Your task to perform on an android device: Clear the shopping cart on ebay. Search for macbook pro 15 inch on ebay, select the first entry, add it to the cart, then select checkout. Image 0: 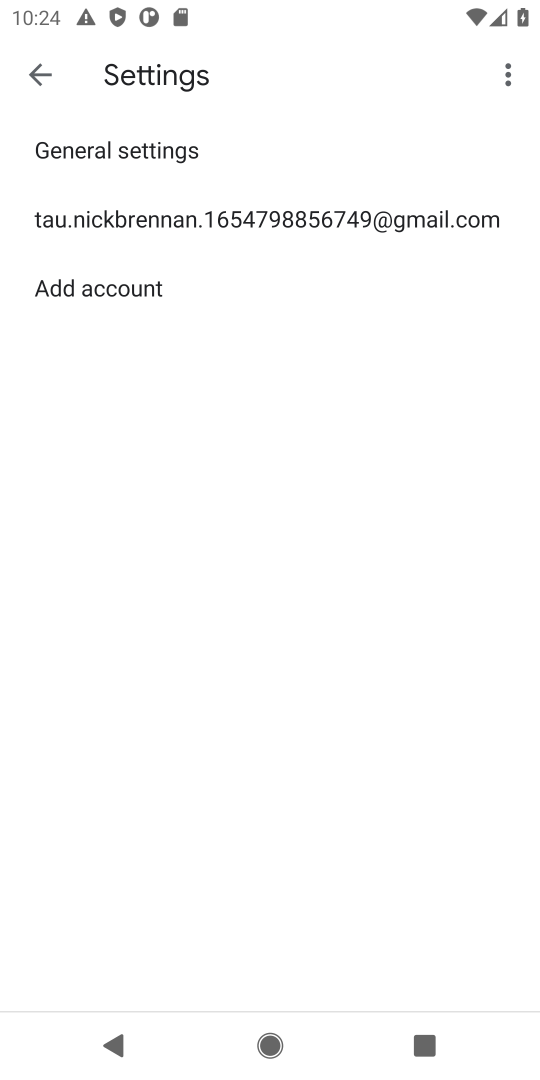
Step 0: type "ebay"
Your task to perform on an android device: Clear the shopping cart on ebay. Search for macbook pro 15 inch on ebay, select the first entry, add it to the cart, then select checkout. Image 1: 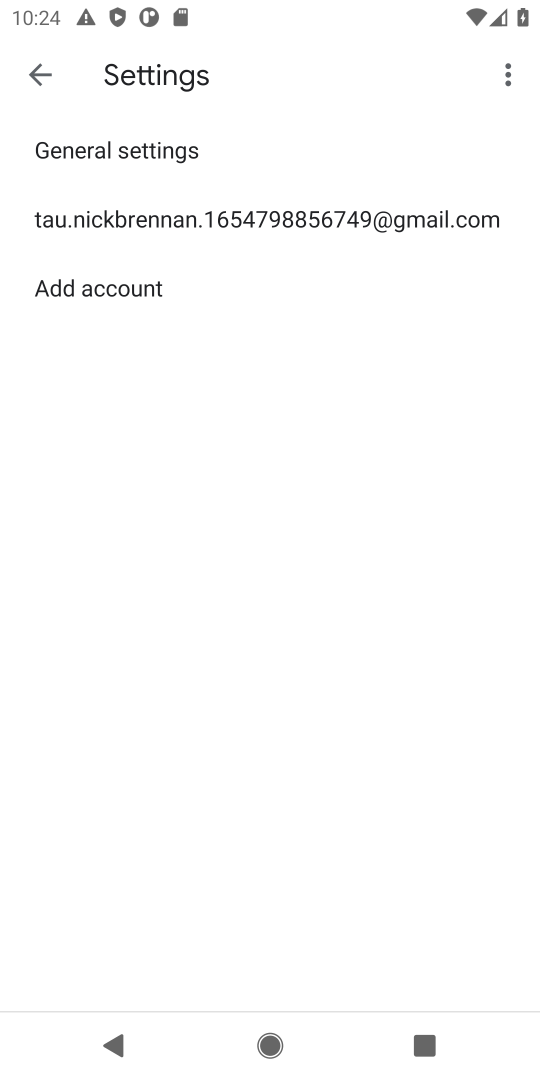
Step 1: type ""
Your task to perform on an android device: Clear the shopping cart on ebay. Search for macbook pro 15 inch on ebay, select the first entry, add it to the cart, then select checkout. Image 2: 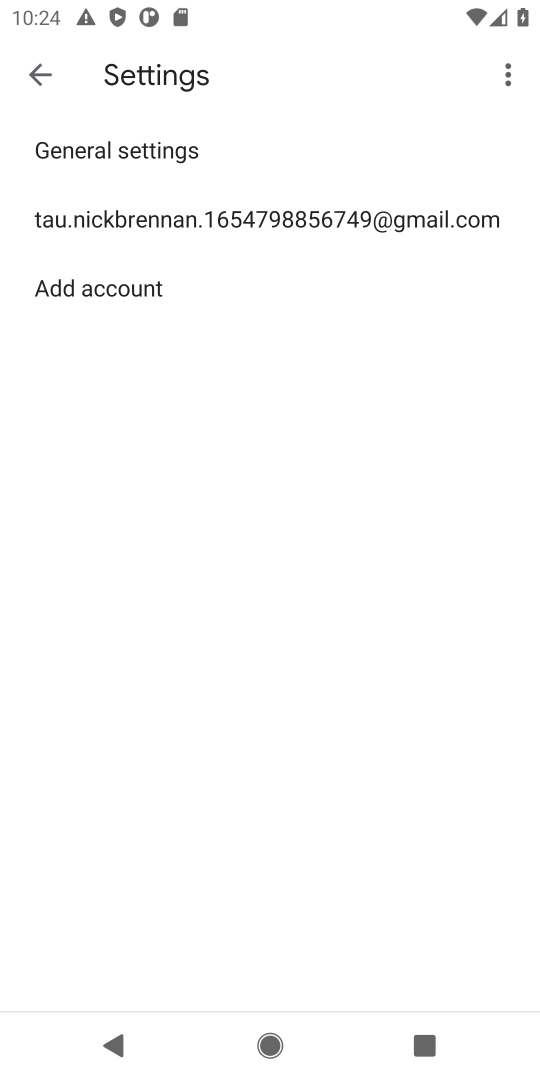
Step 2: press home button
Your task to perform on an android device: Clear the shopping cart on ebay. Search for macbook pro 15 inch on ebay, select the first entry, add it to the cart, then select checkout. Image 3: 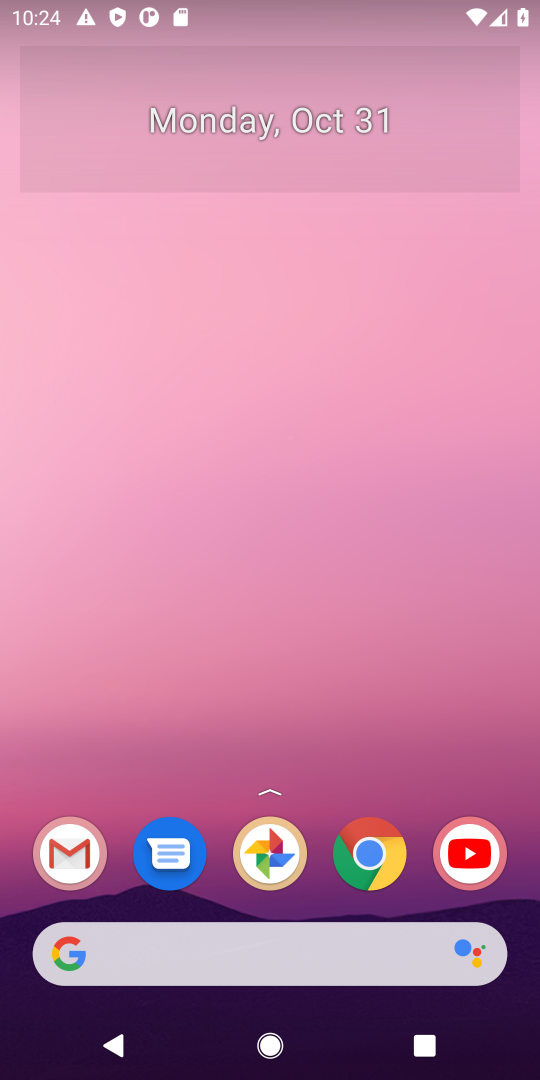
Step 3: type "ebay"
Your task to perform on an android device: Clear the shopping cart on ebay. Search for macbook pro 15 inch on ebay, select the first entry, add it to the cart, then select checkout. Image 4: 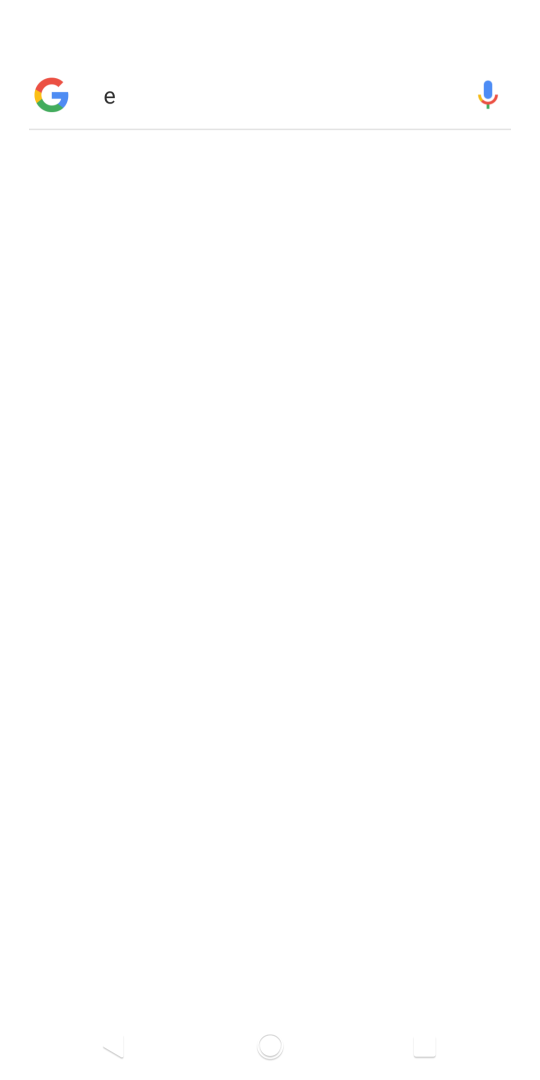
Step 4: type ""
Your task to perform on an android device: Clear the shopping cart on ebay. Search for macbook pro 15 inch on ebay, select the first entry, add it to the cart, then select checkout. Image 5: 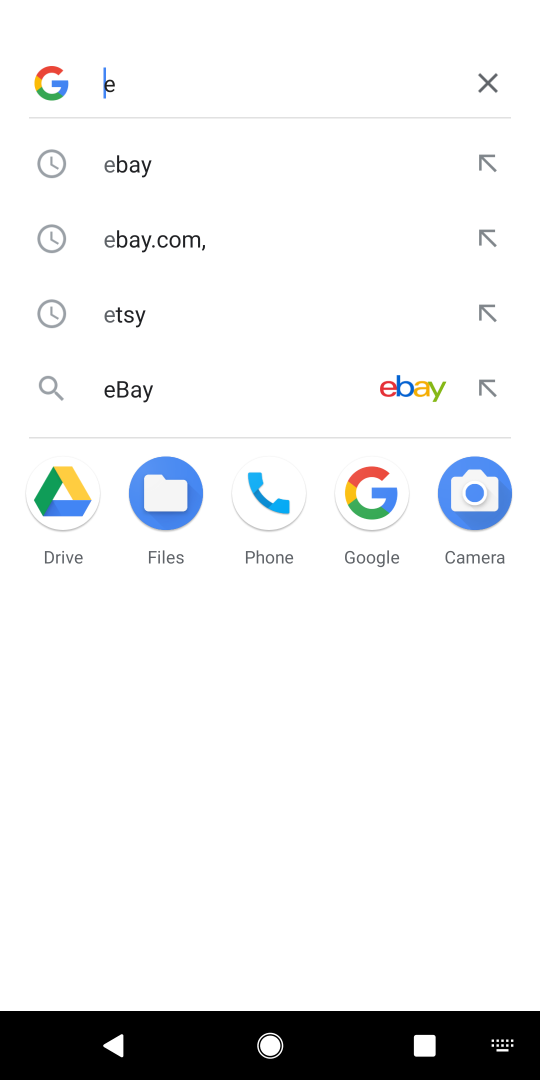
Step 5: click (167, 163)
Your task to perform on an android device: Clear the shopping cart on ebay. Search for macbook pro 15 inch on ebay, select the first entry, add it to the cart, then select checkout. Image 6: 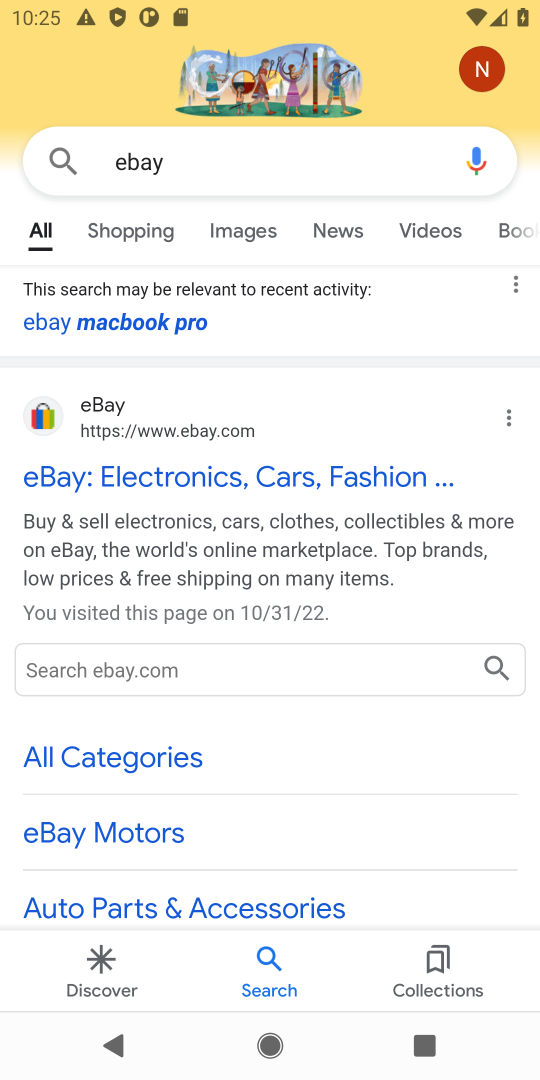
Step 6: click (129, 408)
Your task to perform on an android device: Clear the shopping cart on ebay. Search for macbook pro 15 inch on ebay, select the first entry, add it to the cart, then select checkout. Image 7: 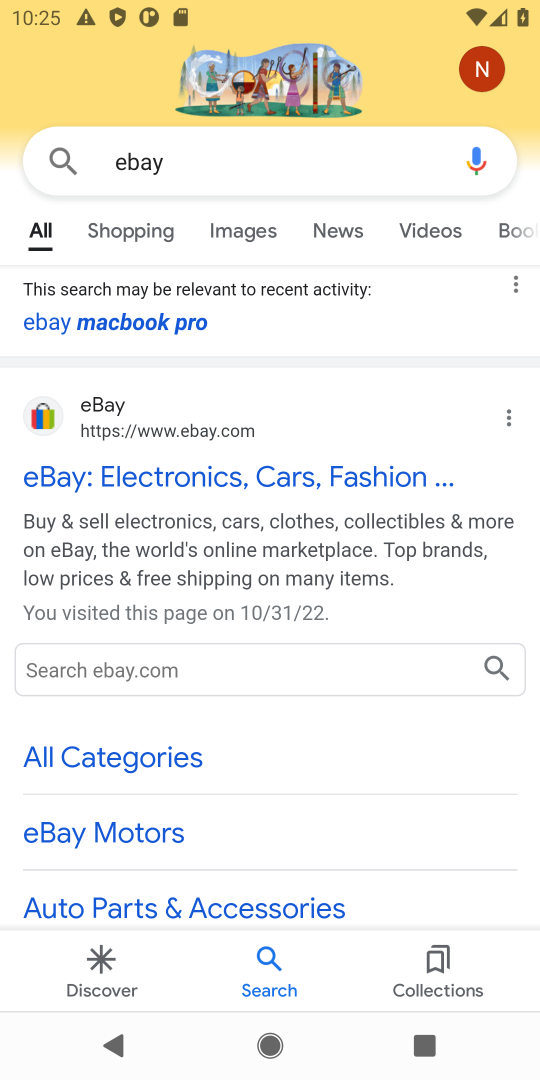
Step 7: click (152, 435)
Your task to perform on an android device: Clear the shopping cart on ebay. Search for macbook pro 15 inch on ebay, select the first entry, add it to the cart, then select checkout. Image 8: 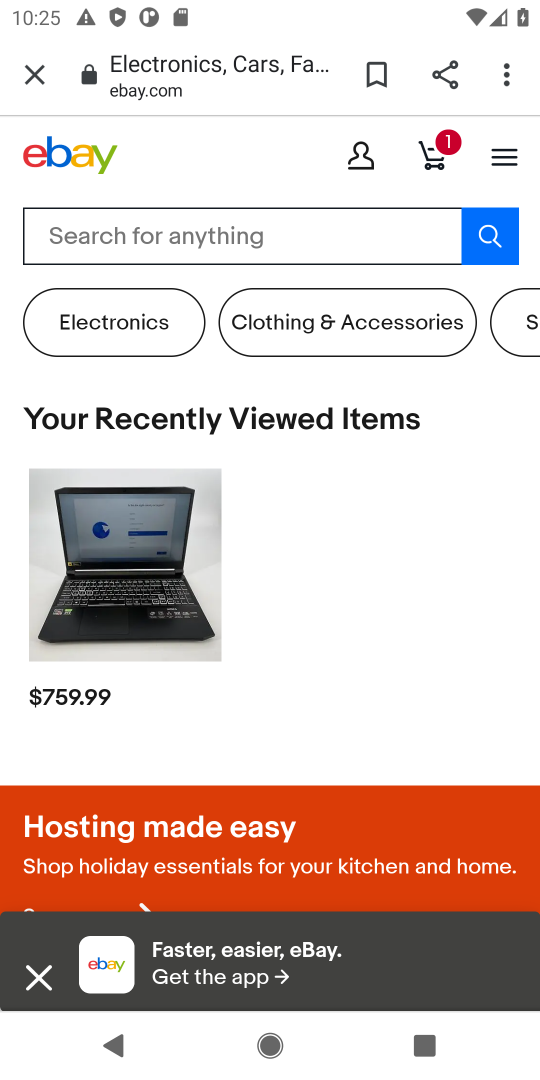
Step 8: click (140, 252)
Your task to perform on an android device: Clear the shopping cart on ebay. Search for macbook pro 15 inch on ebay, select the first entry, add it to the cart, then select checkout. Image 9: 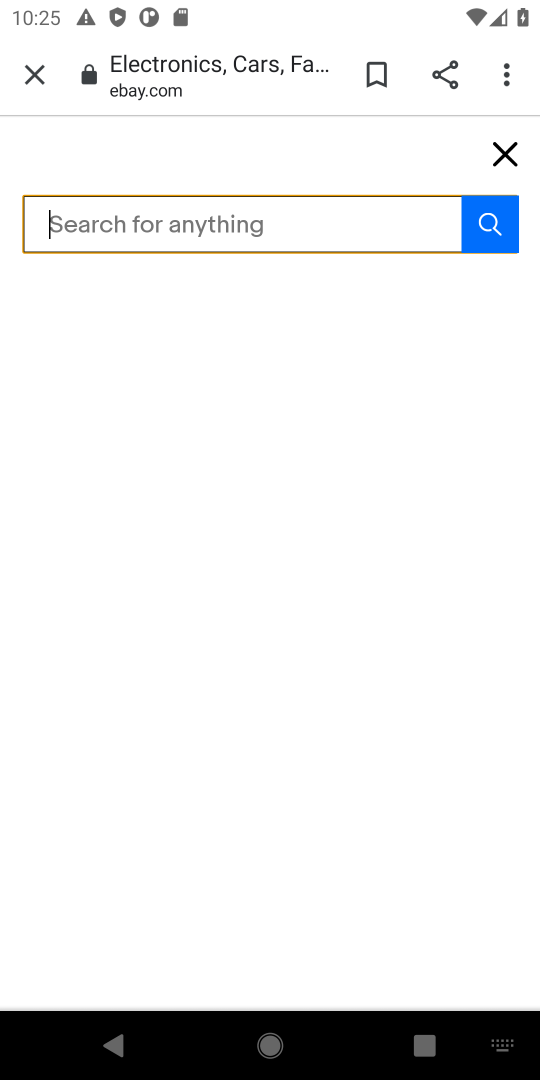
Step 9: click (496, 156)
Your task to perform on an android device: Clear the shopping cart on ebay. Search for macbook pro 15 inch on ebay, select the first entry, add it to the cart, then select checkout. Image 10: 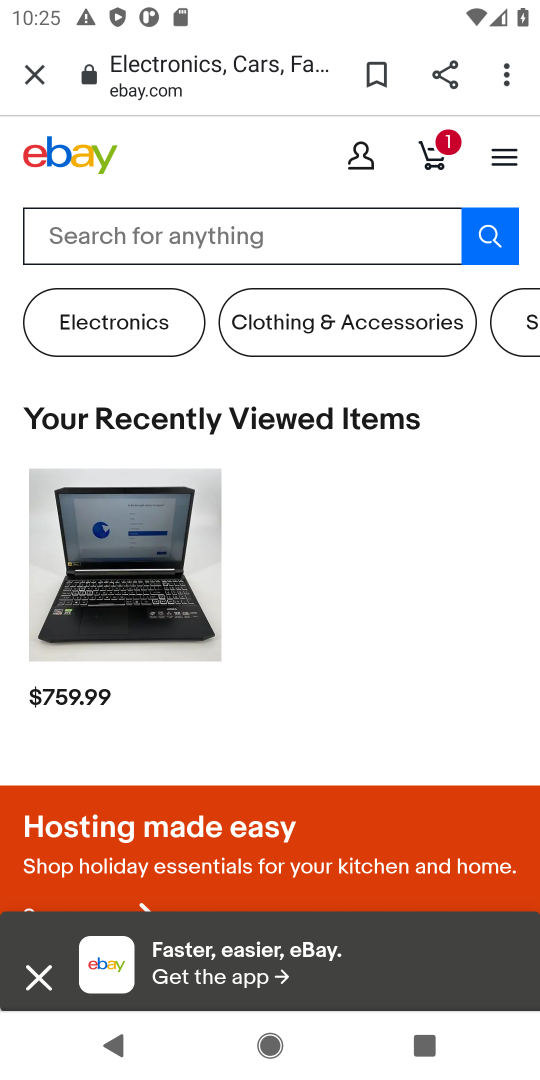
Step 10: click (438, 142)
Your task to perform on an android device: Clear the shopping cart on ebay. Search for macbook pro 15 inch on ebay, select the first entry, add it to the cart, then select checkout. Image 11: 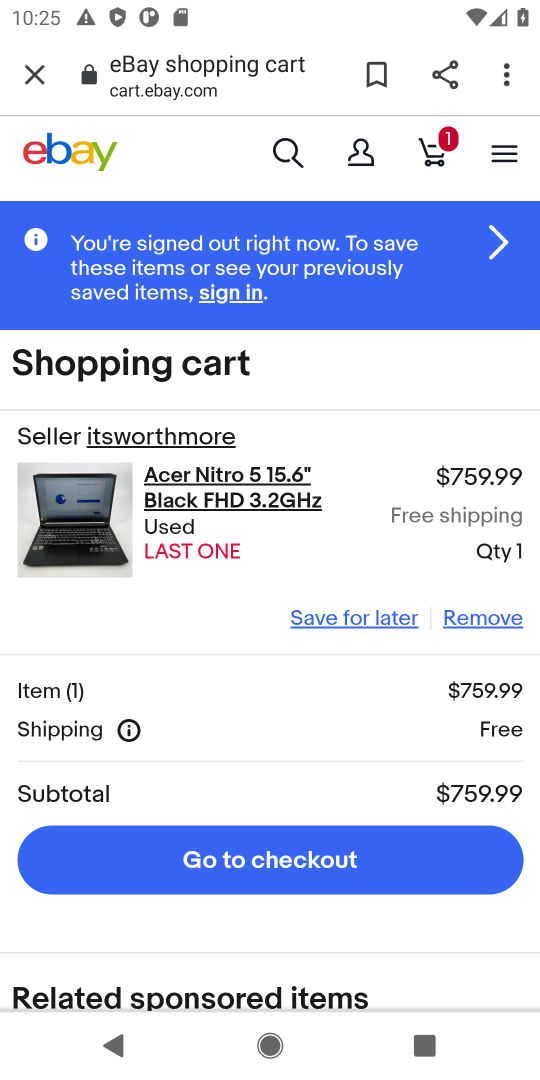
Step 11: click (472, 615)
Your task to perform on an android device: Clear the shopping cart on ebay. Search for macbook pro 15 inch on ebay, select the first entry, add it to the cart, then select checkout. Image 12: 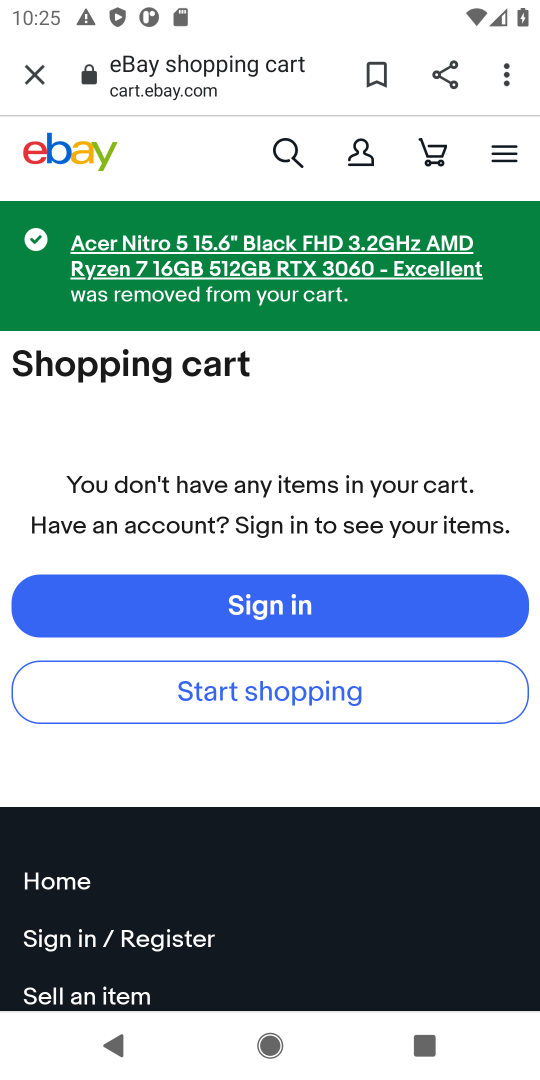
Step 12: click (278, 163)
Your task to perform on an android device: Clear the shopping cart on ebay. Search for macbook pro 15 inch on ebay, select the first entry, add it to the cart, then select checkout. Image 13: 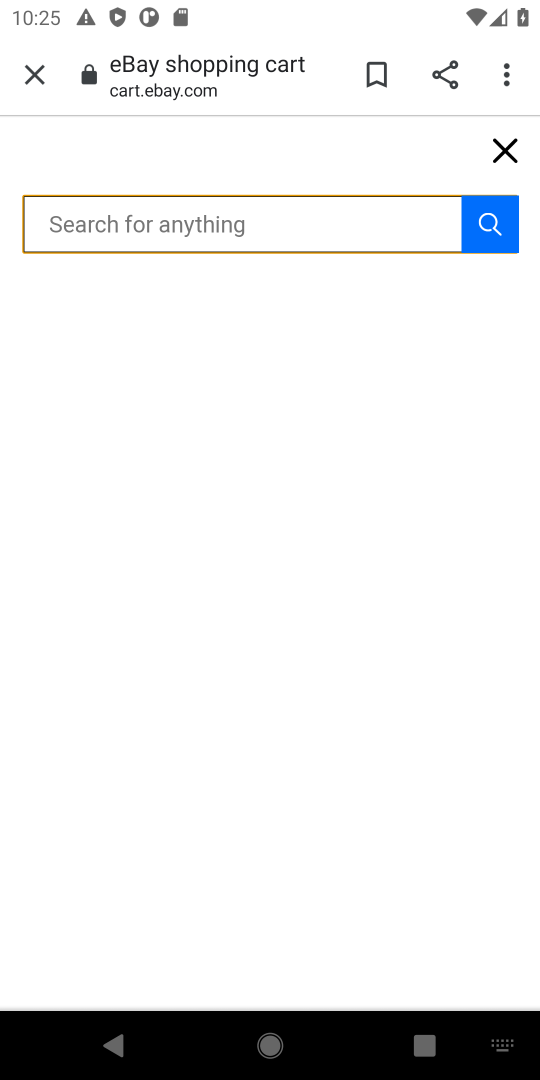
Step 13: type "macbook pro 15 inch"
Your task to perform on an android device: Clear the shopping cart on ebay. Search for macbook pro 15 inch on ebay, select the first entry, add it to the cart, then select checkout. Image 14: 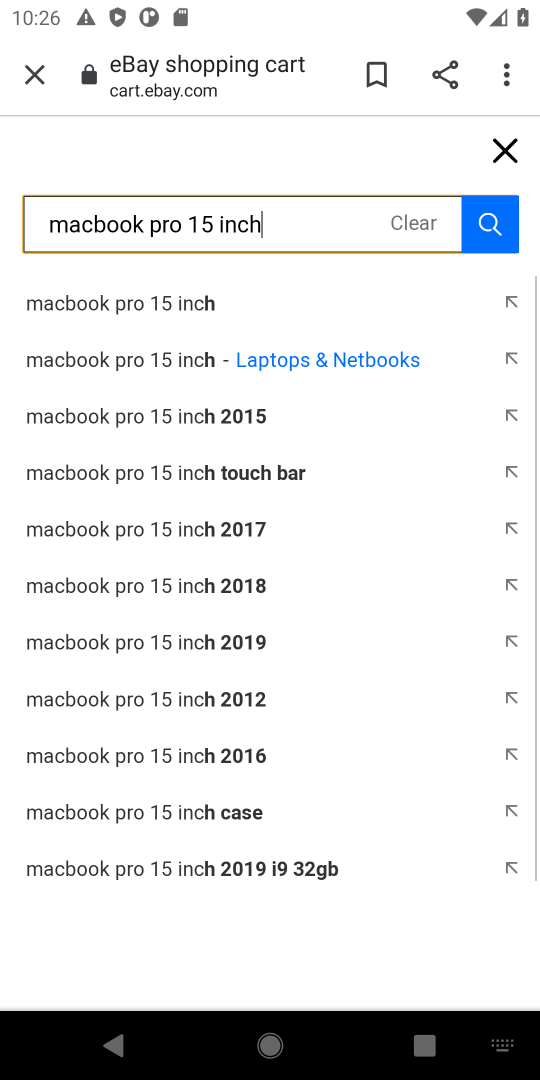
Step 14: type ""
Your task to perform on an android device: Clear the shopping cart on ebay. Search for macbook pro 15 inch on ebay, select the first entry, add it to the cart, then select checkout. Image 15: 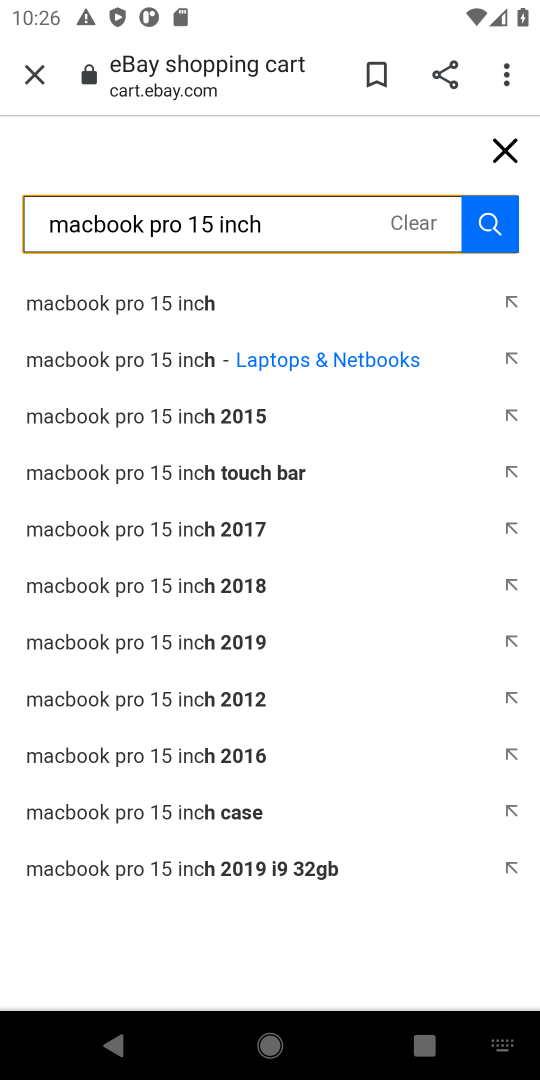
Step 15: type ""
Your task to perform on an android device: Clear the shopping cart on ebay. Search for macbook pro 15 inch on ebay, select the first entry, add it to the cart, then select checkout. Image 16: 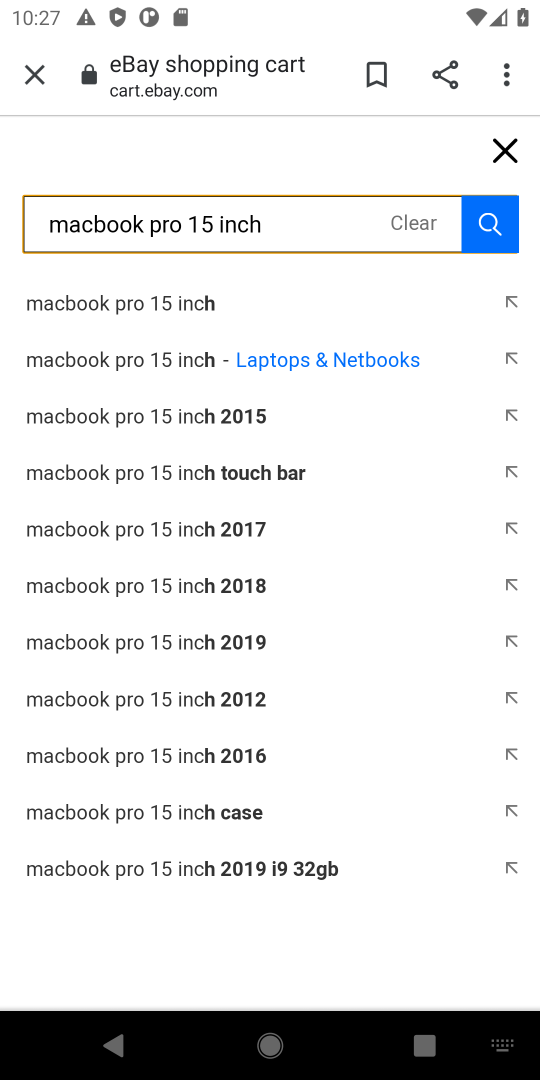
Step 16: press home button
Your task to perform on an android device: Clear the shopping cart on ebay. Search for macbook pro 15 inch on ebay, select the first entry, add it to the cart, then select checkout. Image 17: 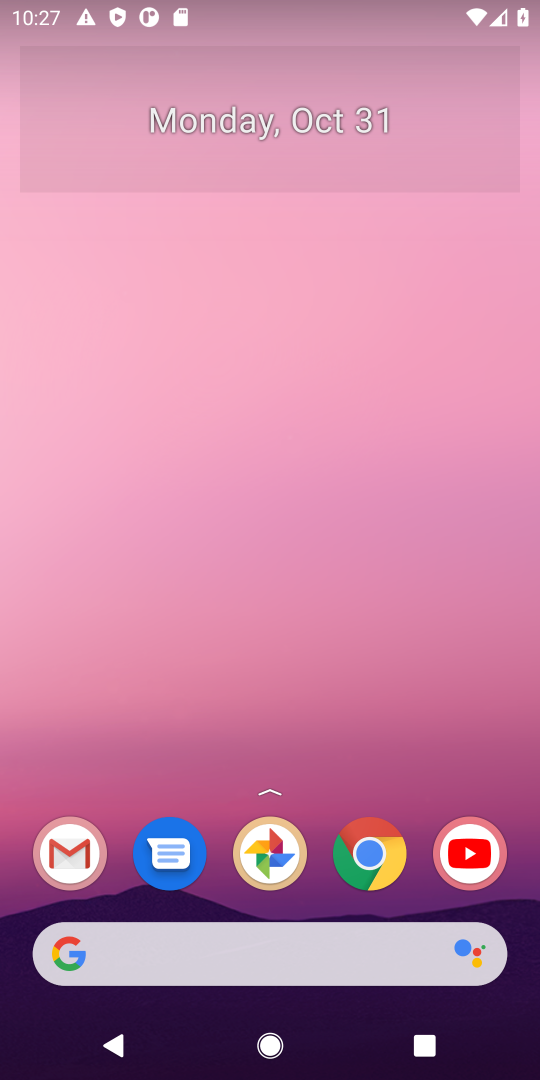
Step 17: click (269, 969)
Your task to perform on an android device: Clear the shopping cart on ebay. Search for macbook pro 15 inch on ebay, select the first entry, add it to the cart, then select checkout. Image 18: 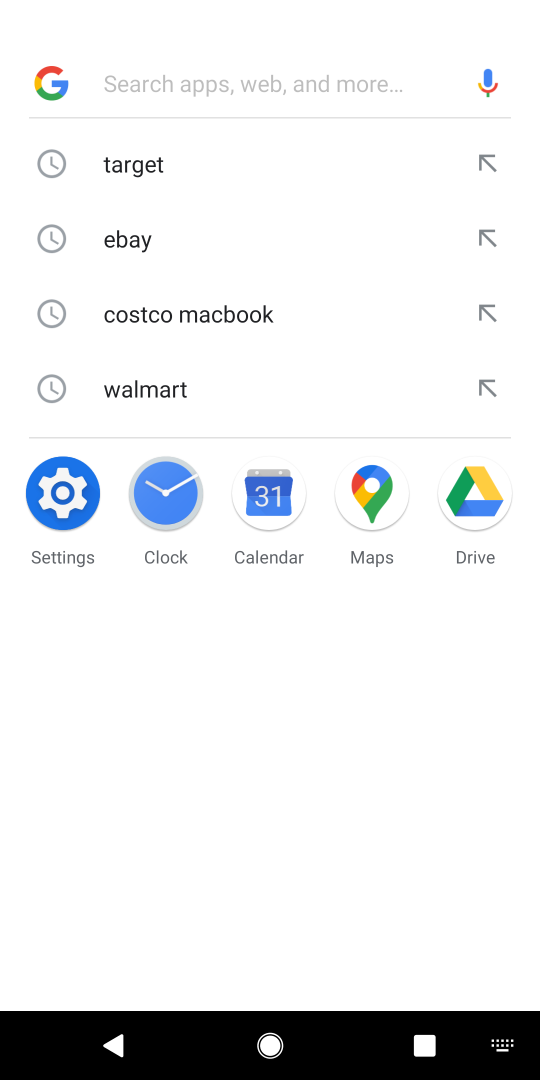
Step 18: click (149, 253)
Your task to perform on an android device: Clear the shopping cart on ebay. Search for macbook pro 15 inch on ebay, select the first entry, add it to the cart, then select checkout. Image 19: 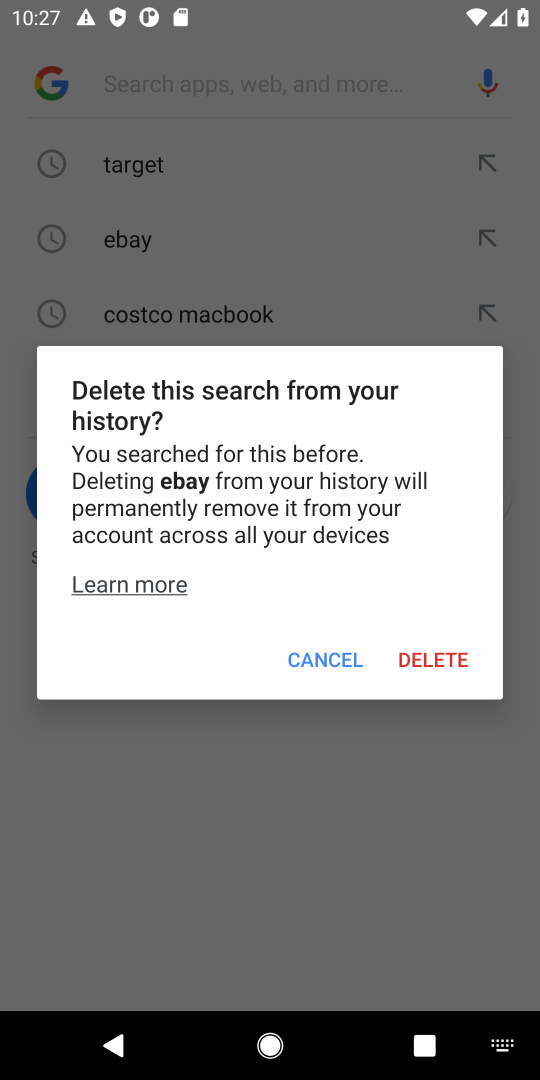
Step 19: click (320, 675)
Your task to perform on an android device: Clear the shopping cart on ebay. Search for macbook pro 15 inch on ebay, select the first entry, add it to the cart, then select checkout. Image 20: 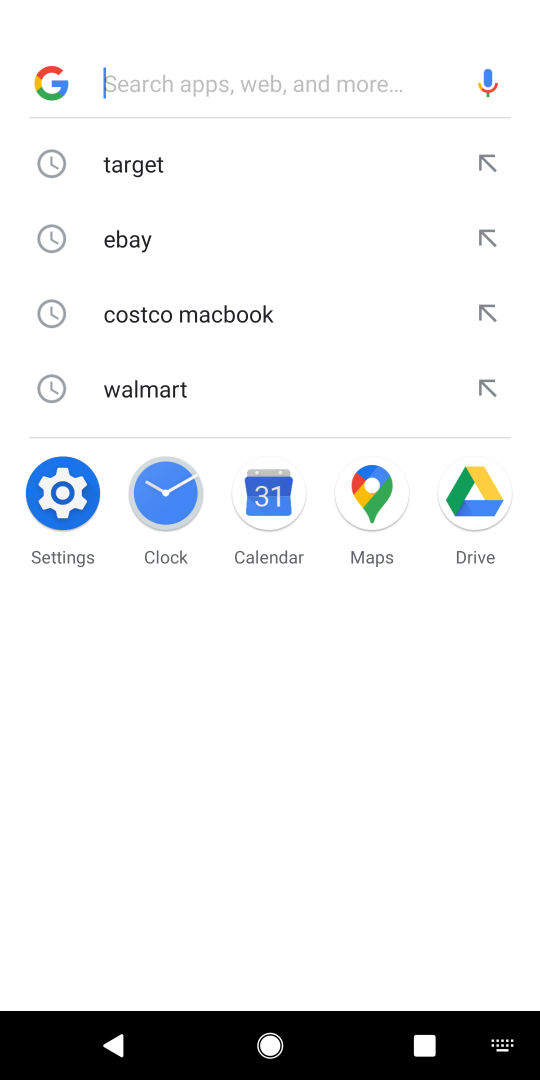
Step 20: click (128, 245)
Your task to perform on an android device: Clear the shopping cart on ebay. Search for macbook pro 15 inch on ebay, select the first entry, add it to the cart, then select checkout. Image 21: 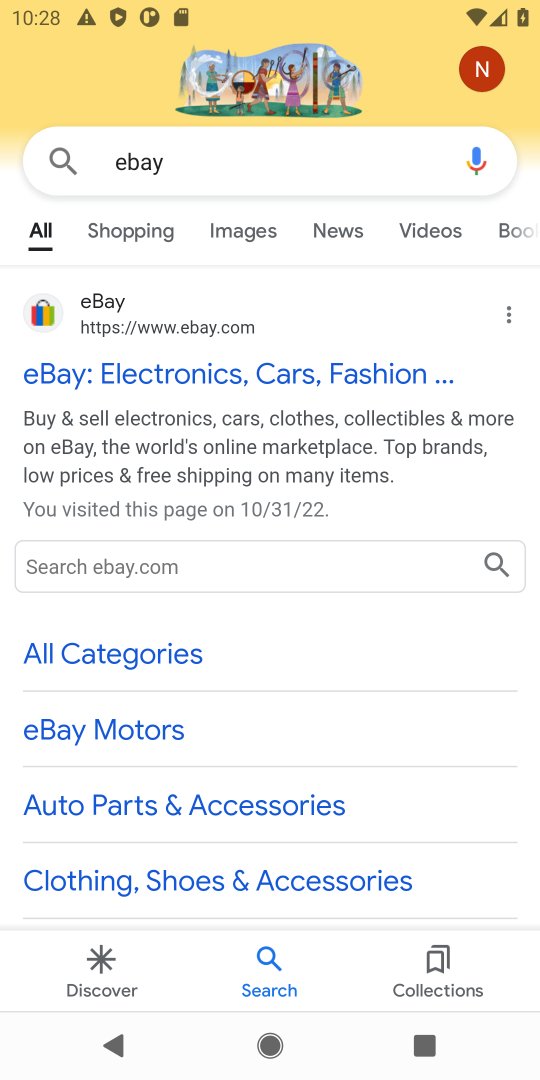
Step 21: click (199, 368)
Your task to perform on an android device: Clear the shopping cart on ebay. Search for macbook pro 15 inch on ebay, select the first entry, add it to the cart, then select checkout. Image 22: 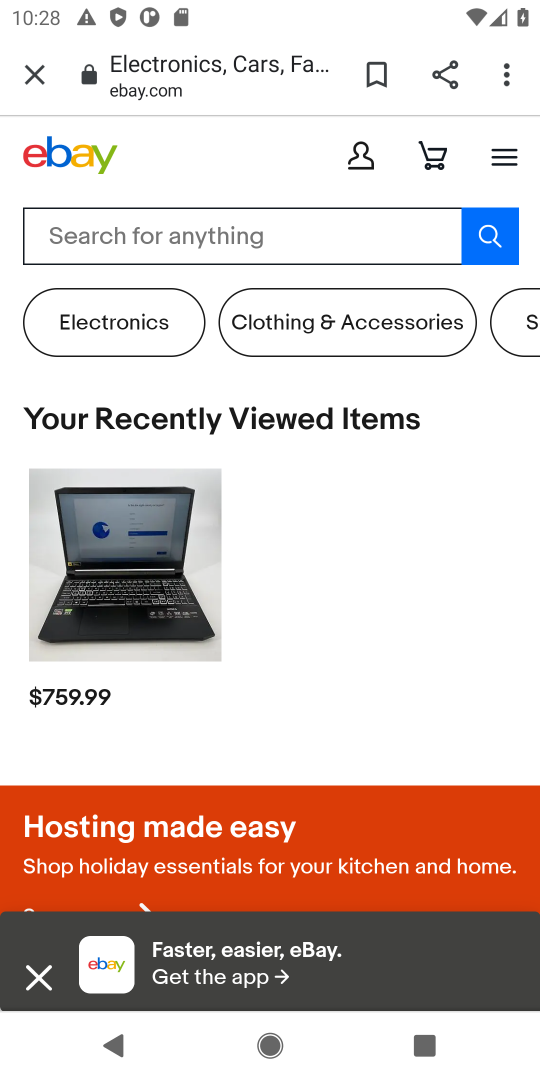
Step 22: click (132, 249)
Your task to perform on an android device: Clear the shopping cart on ebay. Search for macbook pro 15 inch on ebay, select the first entry, add it to the cart, then select checkout. Image 23: 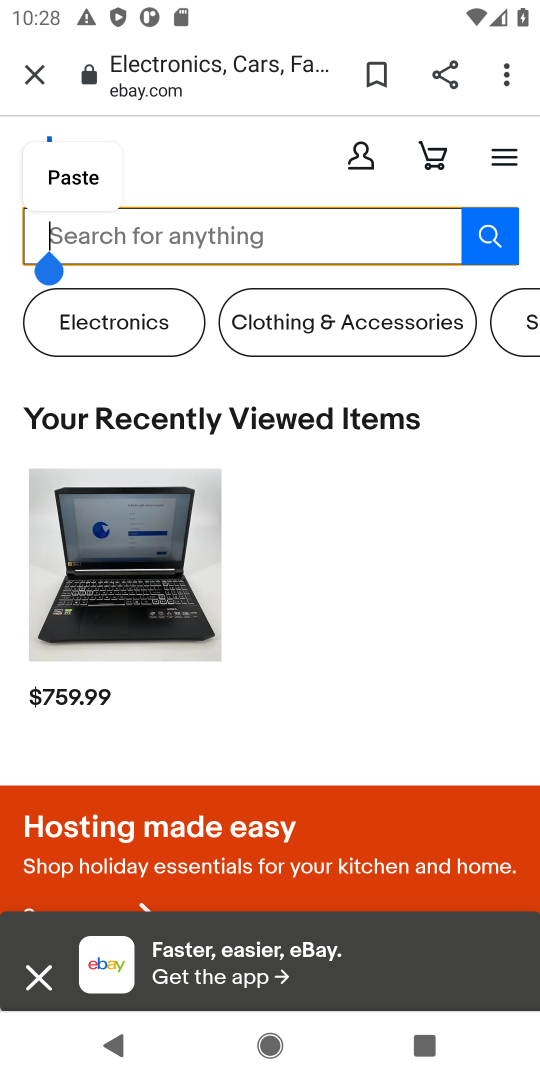
Step 23: type "macbook pro 15 inch"
Your task to perform on an android device: Clear the shopping cart on ebay. Search for macbook pro 15 inch on ebay, select the first entry, add it to the cart, then select checkout. Image 24: 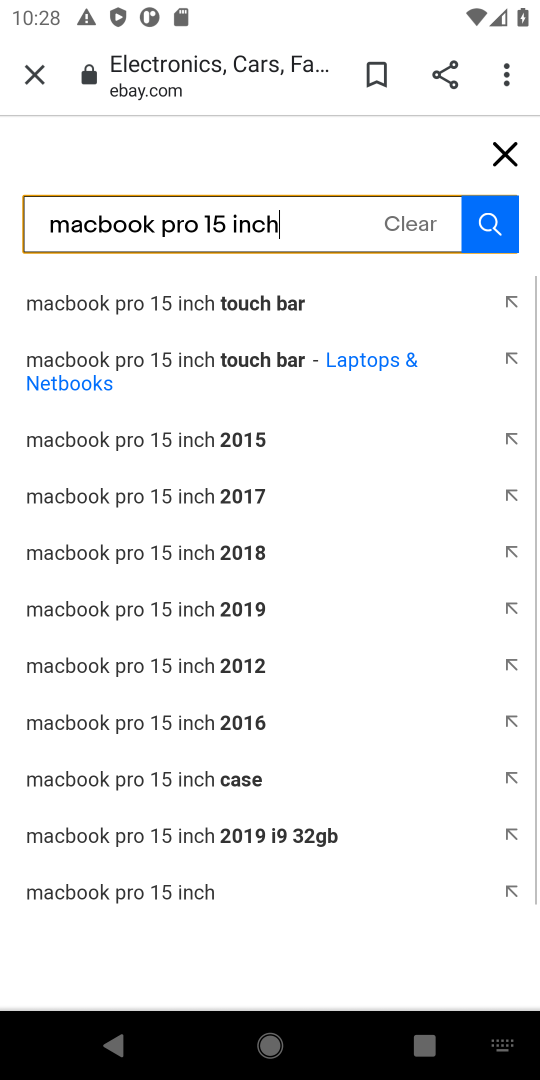
Step 24: press enter
Your task to perform on an android device: Clear the shopping cart on ebay. Search for macbook pro 15 inch on ebay, select the first entry, add it to the cart, then select checkout. Image 25: 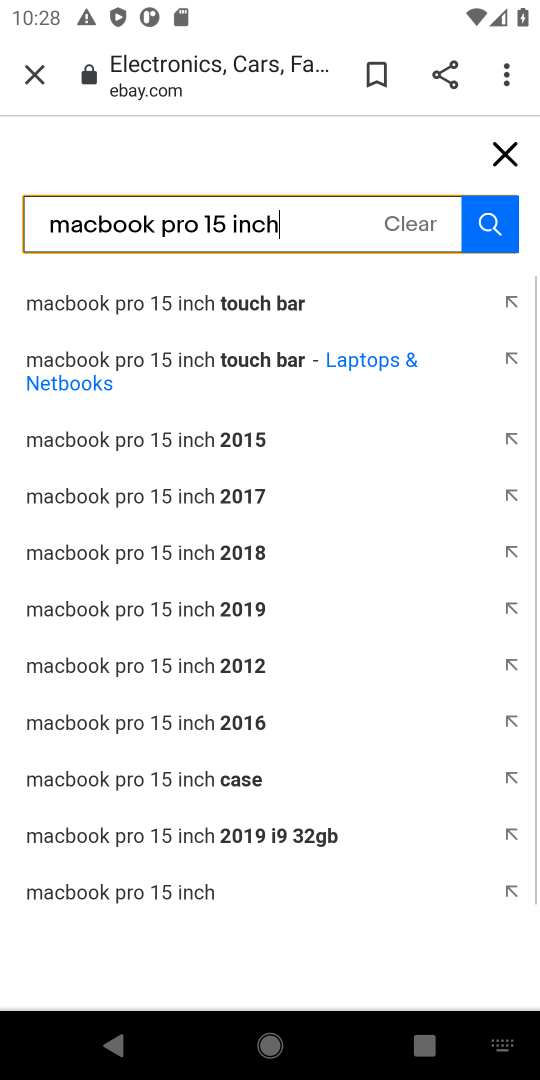
Step 25: type ""
Your task to perform on an android device: Clear the shopping cart on ebay. Search for macbook pro 15 inch on ebay, select the first entry, add it to the cart, then select checkout. Image 26: 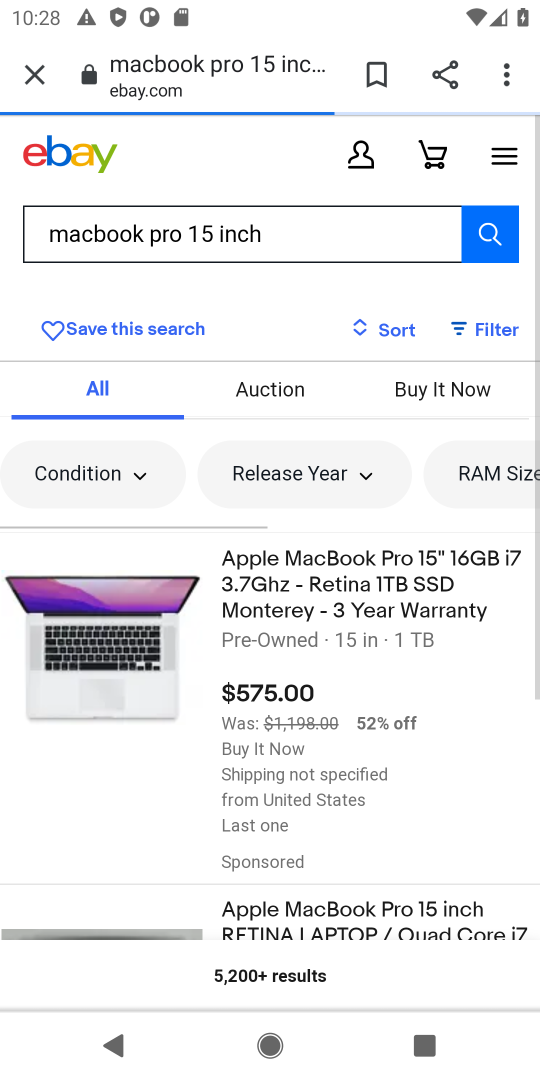
Step 26: click (486, 232)
Your task to perform on an android device: Clear the shopping cart on ebay. Search for macbook pro 15 inch on ebay, select the first entry, add it to the cart, then select checkout. Image 27: 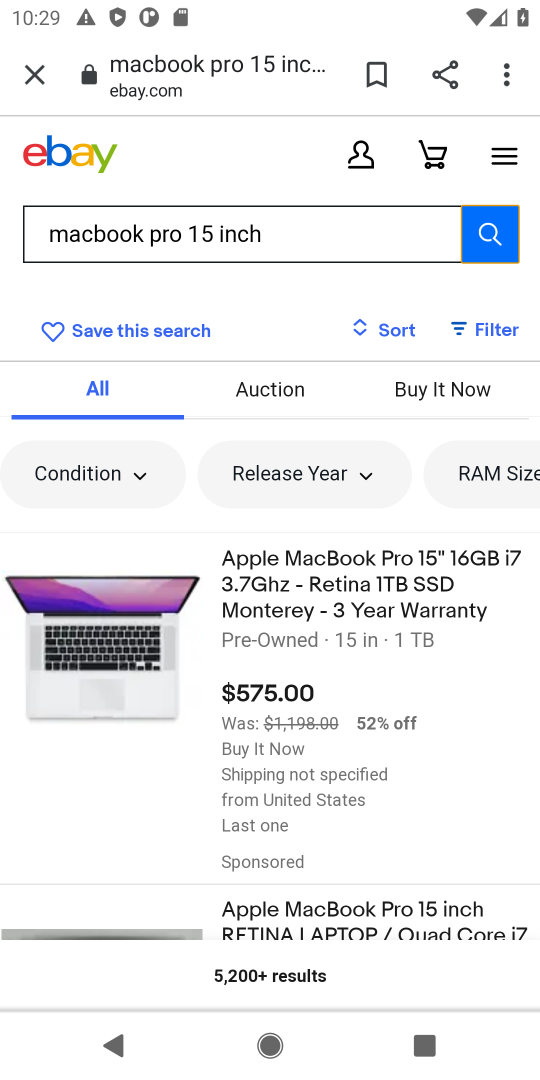
Step 27: click (337, 581)
Your task to perform on an android device: Clear the shopping cart on ebay. Search for macbook pro 15 inch on ebay, select the first entry, add it to the cart, then select checkout. Image 28: 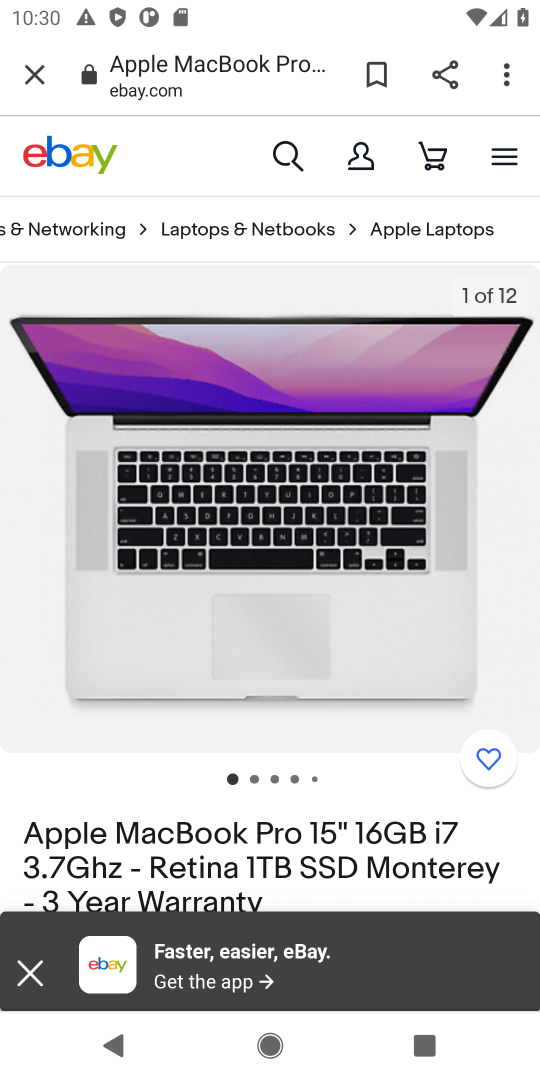
Step 28: drag from (521, 701) to (483, 257)
Your task to perform on an android device: Clear the shopping cart on ebay. Search for macbook pro 15 inch on ebay, select the first entry, add it to the cart, then select checkout. Image 29: 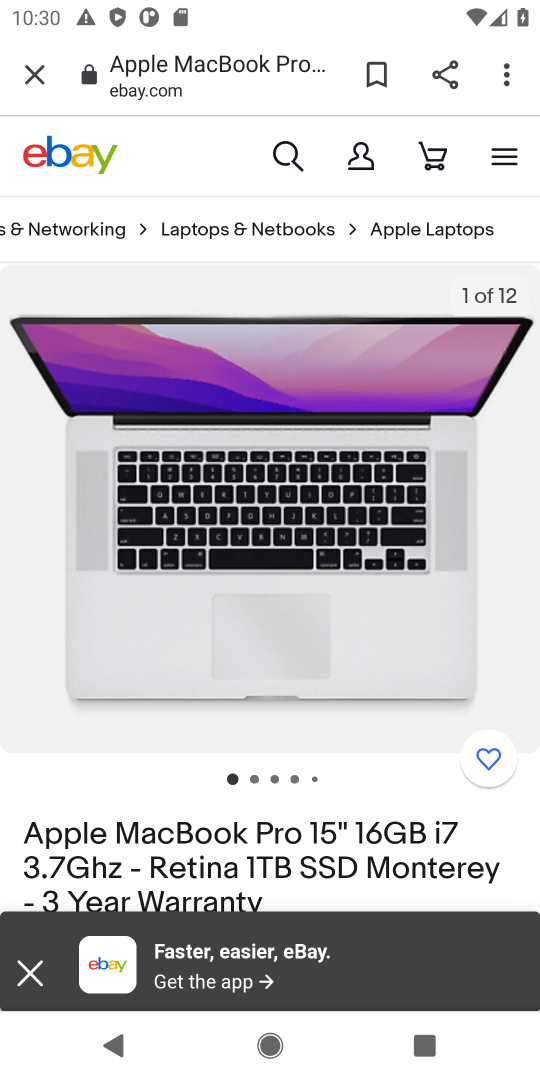
Step 29: click (40, 982)
Your task to perform on an android device: Clear the shopping cart on ebay. Search for macbook pro 15 inch on ebay, select the first entry, add it to the cart, then select checkout. Image 30: 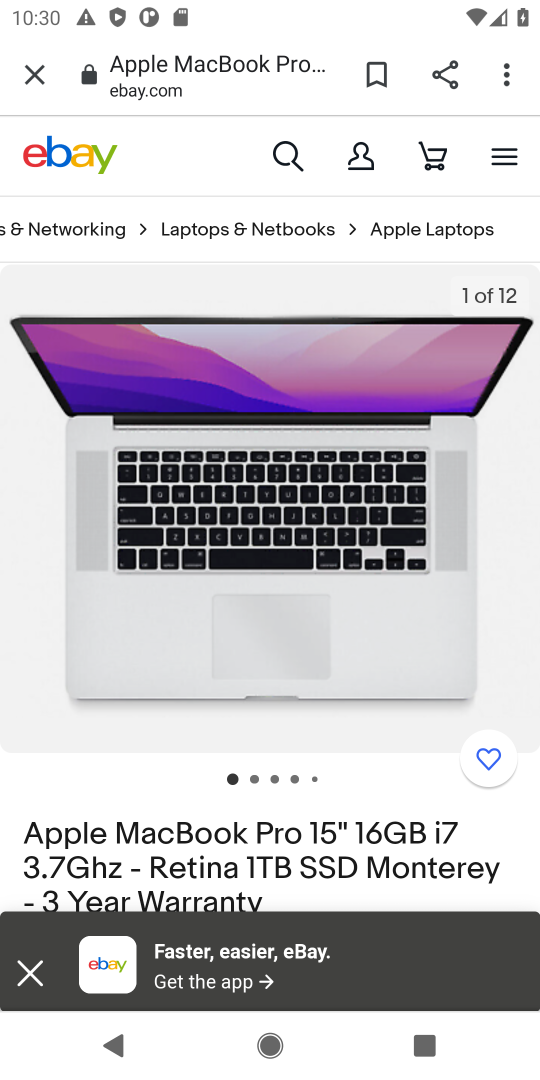
Step 30: click (32, 982)
Your task to perform on an android device: Clear the shopping cart on ebay. Search for macbook pro 15 inch on ebay, select the first entry, add it to the cart, then select checkout. Image 31: 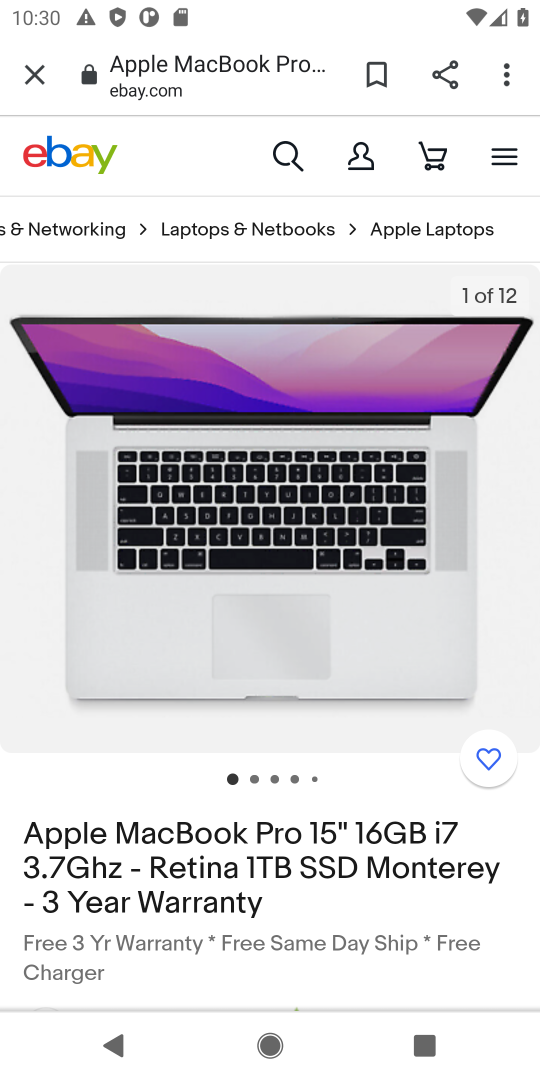
Step 31: task complete